Your task to perform on an android device: turn off priority inbox in the gmail app Image 0: 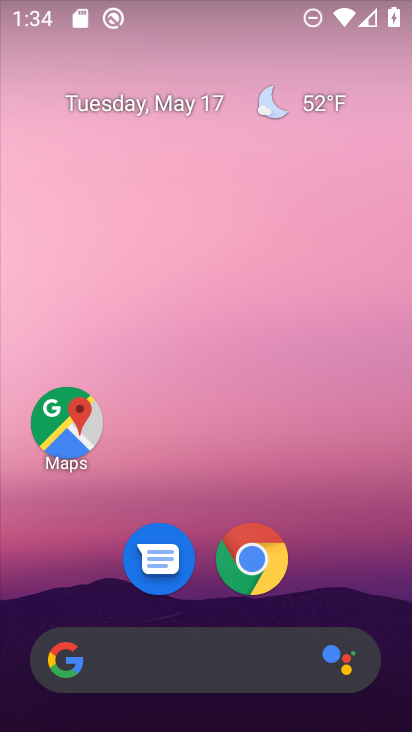
Step 0: drag from (331, 585) to (234, 80)
Your task to perform on an android device: turn off priority inbox in the gmail app Image 1: 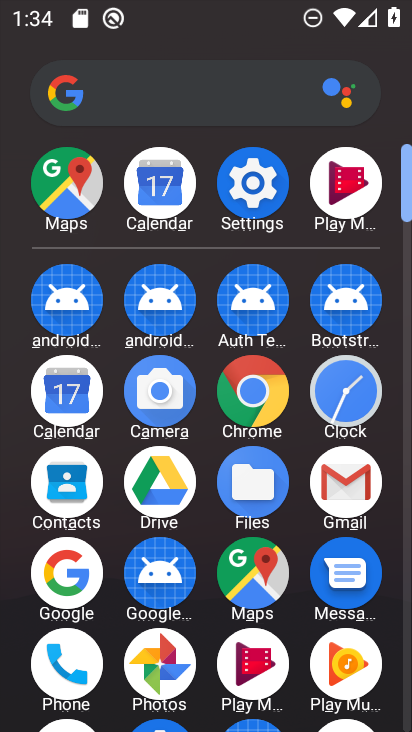
Step 1: click (343, 483)
Your task to perform on an android device: turn off priority inbox in the gmail app Image 2: 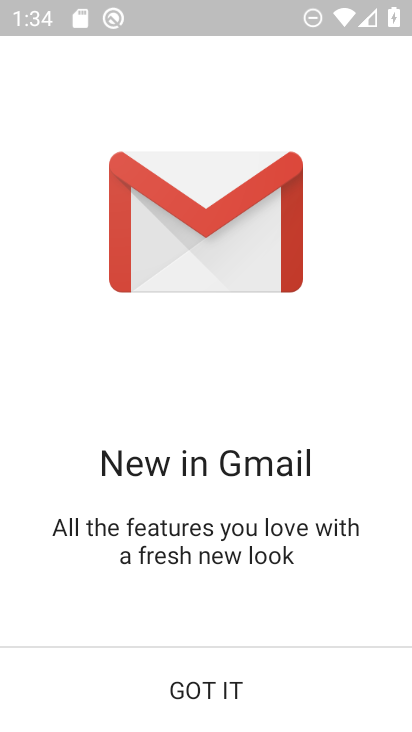
Step 2: click (194, 692)
Your task to perform on an android device: turn off priority inbox in the gmail app Image 3: 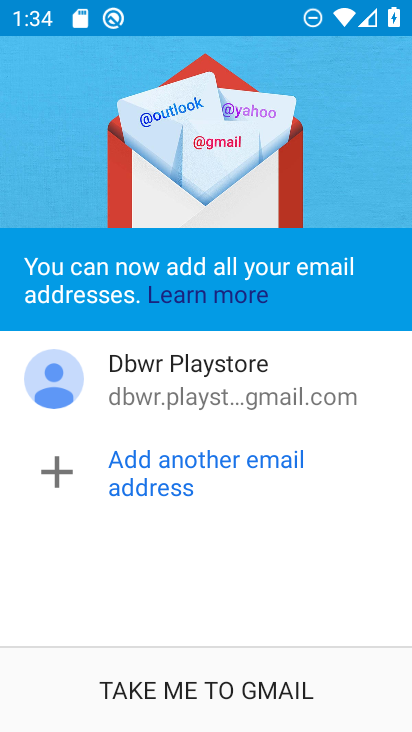
Step 3: click (198, 692)
Your task to perform on an android device: turn off priority inbox in the gmail app Image 4: 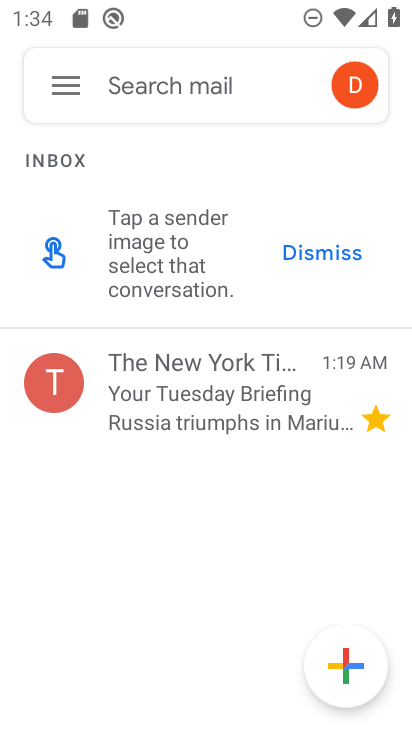
Step 4: click (75, 75)
Your task to perform on an android device: turn off priority inbox in the gmail app Image 5: 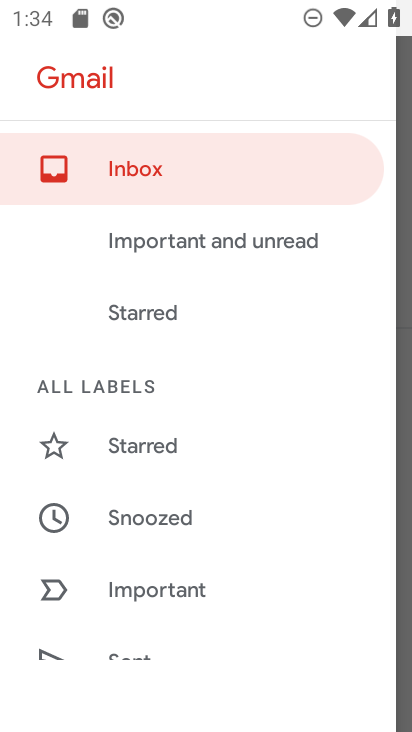
Step 5: drag from (160, 470) to (216, 361)
Your task to perform on an android device: turn off priority inbox in the gmail app Image 6: 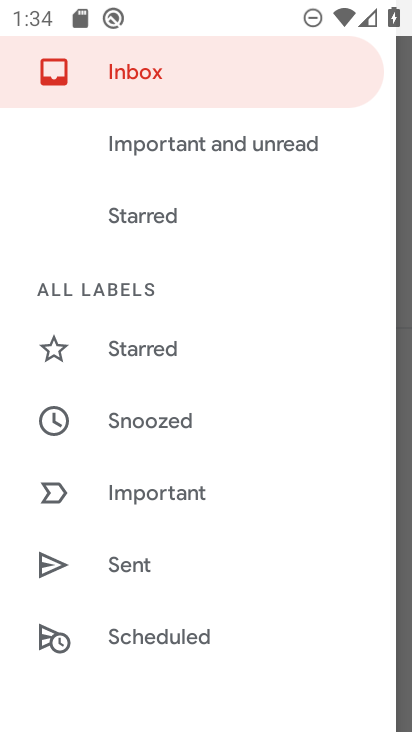
Step 6: drag from (168, 574) to (198, 441)
Your task to perform on an android device: turn off priority inbox in the gmail app Image 7: 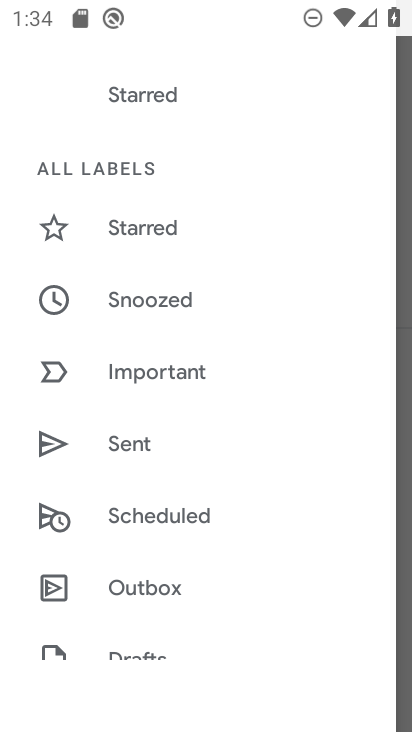
Step 7: drag from (156, 561) to (222, 429)
Your task to perform on an android device: turn off priority inbox in the gmail app Image 8: 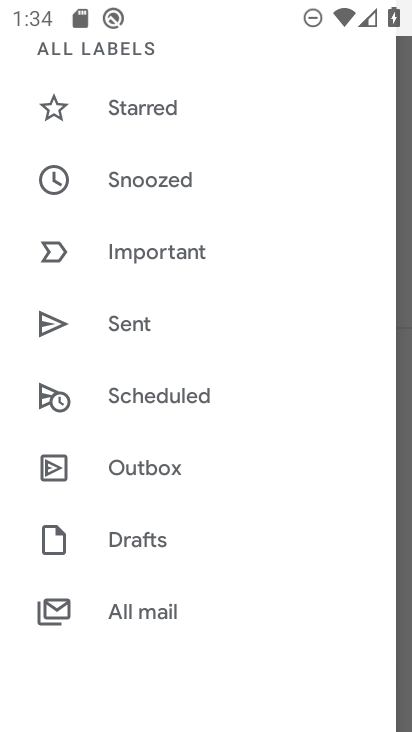
Step 8: drag from (172, 514) to (217, 448)
Your task to perform on an android device: turn off priority inbox in the gmail app Image 9: 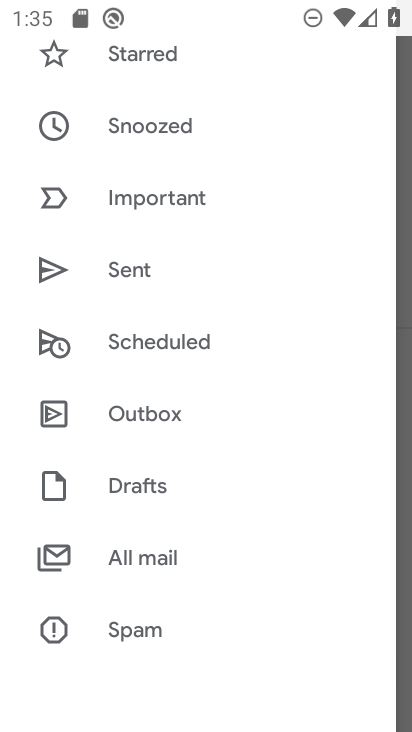
Step 9: drag from (169, 575) to (216, 496)
Your task to perform on an android device: turn off priority inbox in the gmail app Image 10: 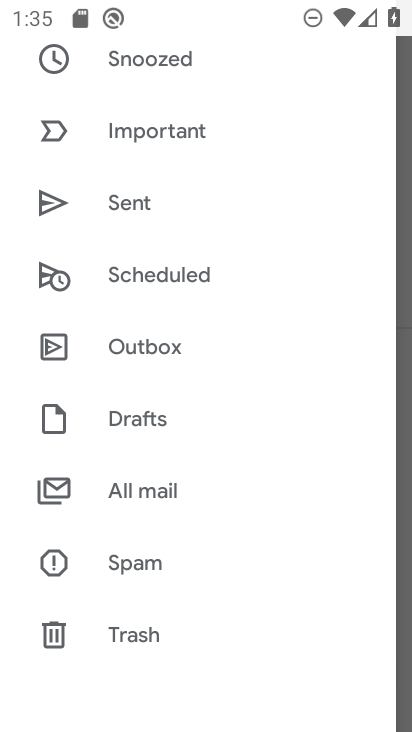
Step 10: drag from (180, 547) to (215, 481)
Your task to perform on an android device: turn off priority inbox in the gmail app Image 11: 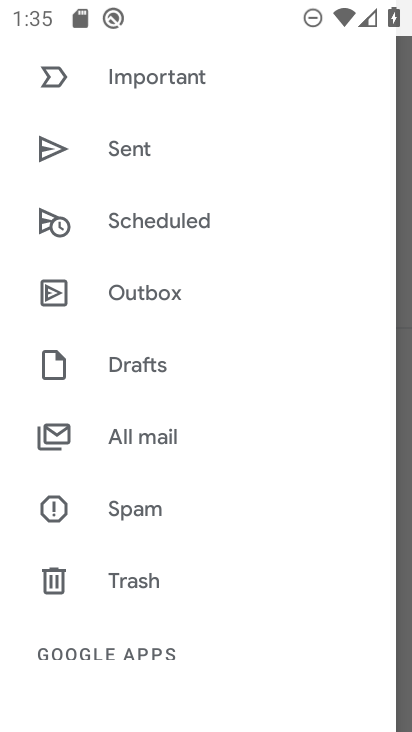
Step 11: drag from (168, 617) to (242, 507)
Your task to perform on an android device: turn off priority inbox in the gmail app Image 12: 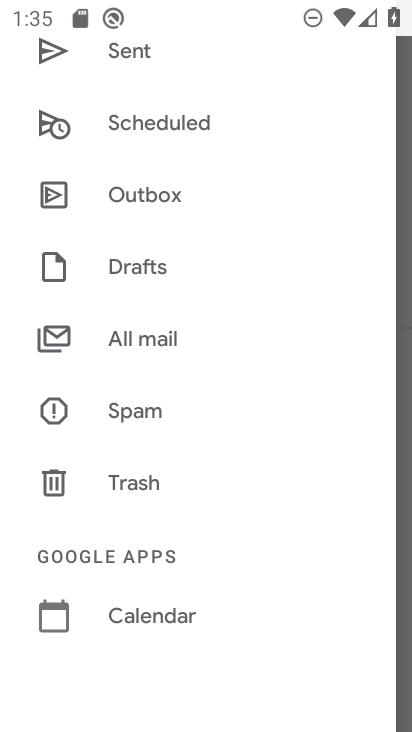
Step 12: drag from (160, 595) to (229, 478)
Your task to perform on an android device: turn off priority inbox in the gmail app Image 13: 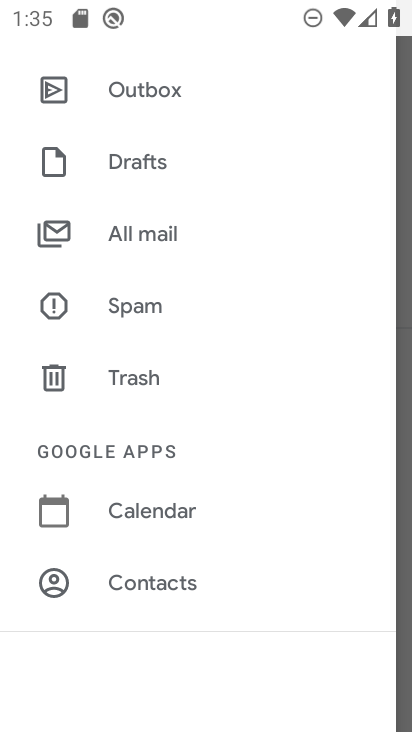
Step 13: drag from (187, 617) to (217, 468)
Your task to perform on an android device: turn off priority inbox in the gmail app Image 14: 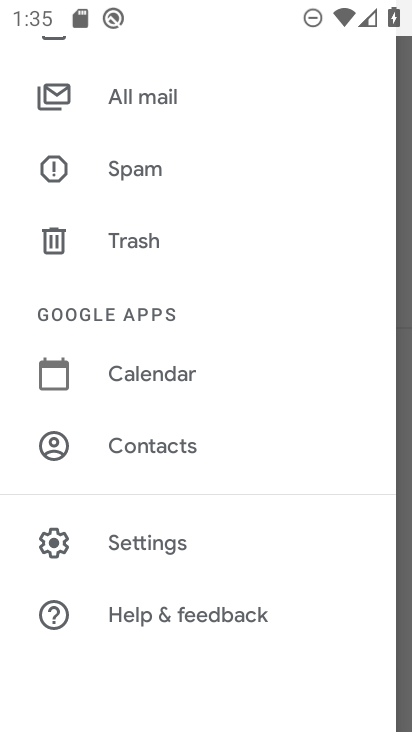
Step 14: click (140, 544)
Your task to perform on an android device: turn off priority inbox in the gmail app Image 15: 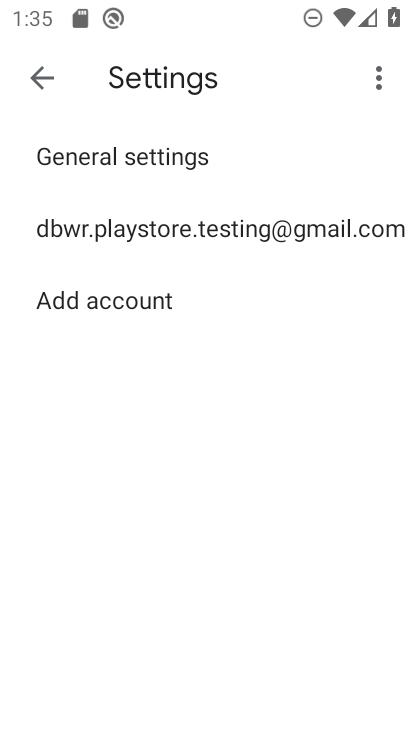
Step 15: click (269, 236)
Your task to perform on an android device: turn off priority inbox in the gmail app Image 16: 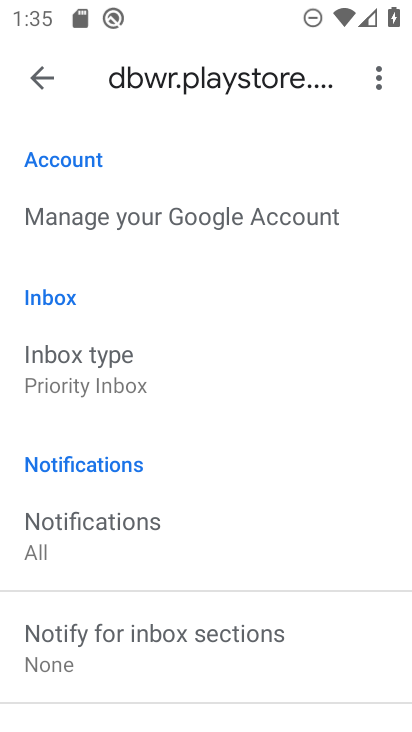
Step 16: click (127, 360)
Your task to perform on an android device: turn off priority inbox in the gmail app Image 17: 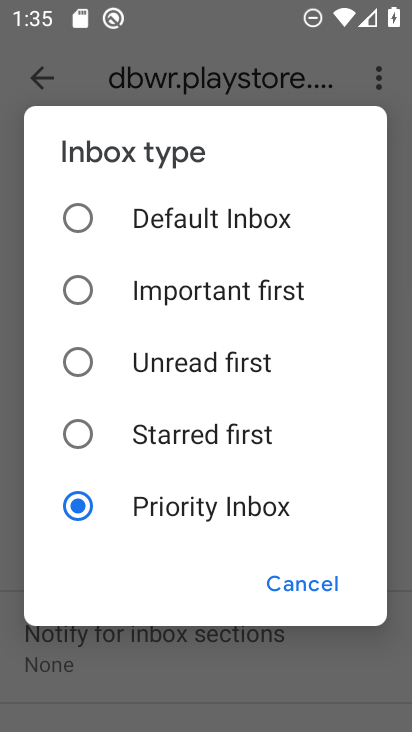
Step 17: click (85, 372)
Your task to perform on an android device: turn off priority inbox in the gmail app Image 18: 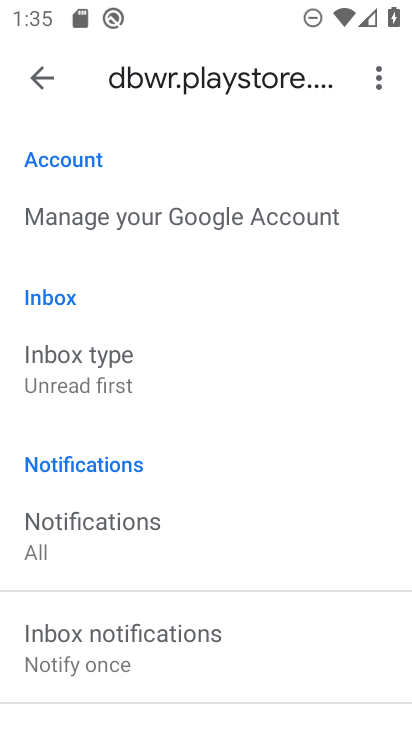
Step 18: task complete